Your task to perform on an android device: Search for custom wallets on Etsy. Image 0: 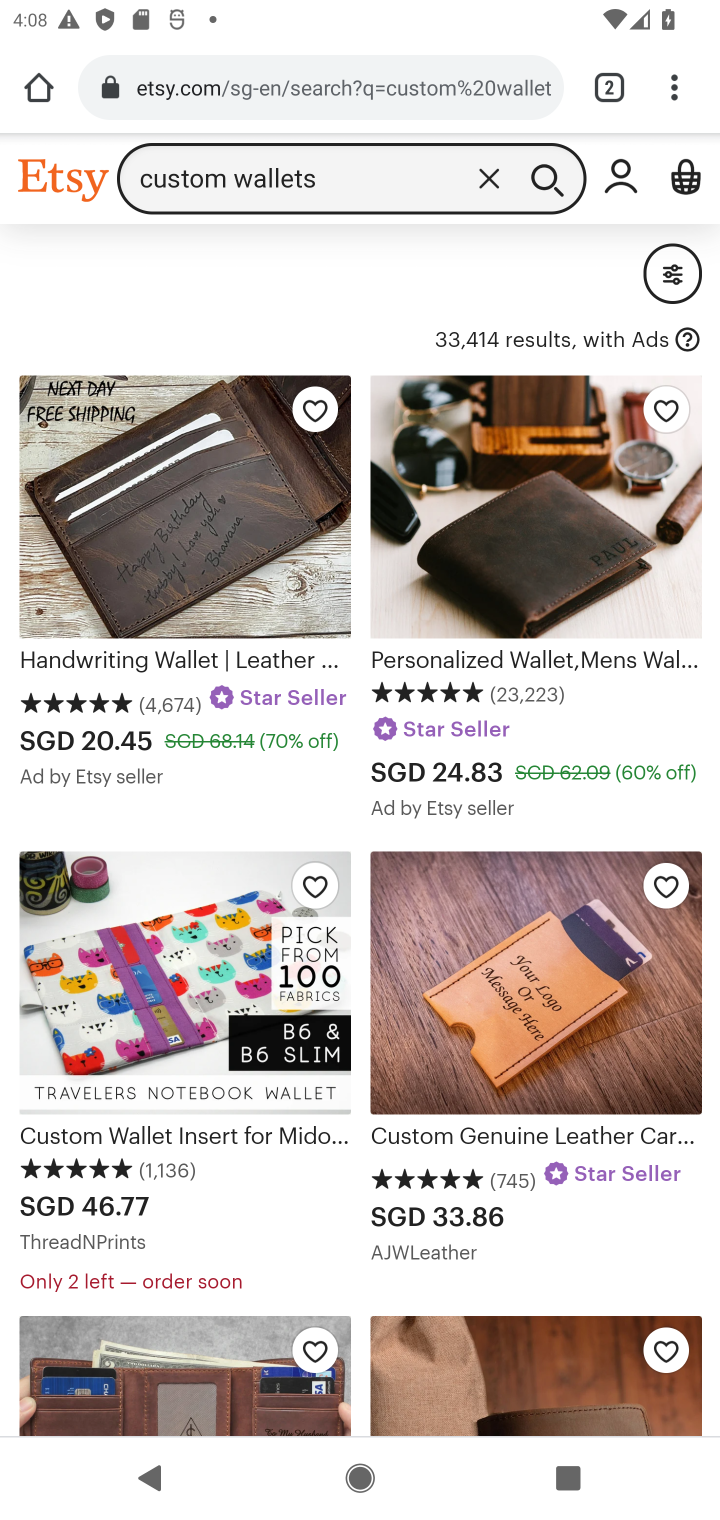
Step 0: press home button
Your task to perform on an android device: Search for custom wallets on Etsy. Image 1: 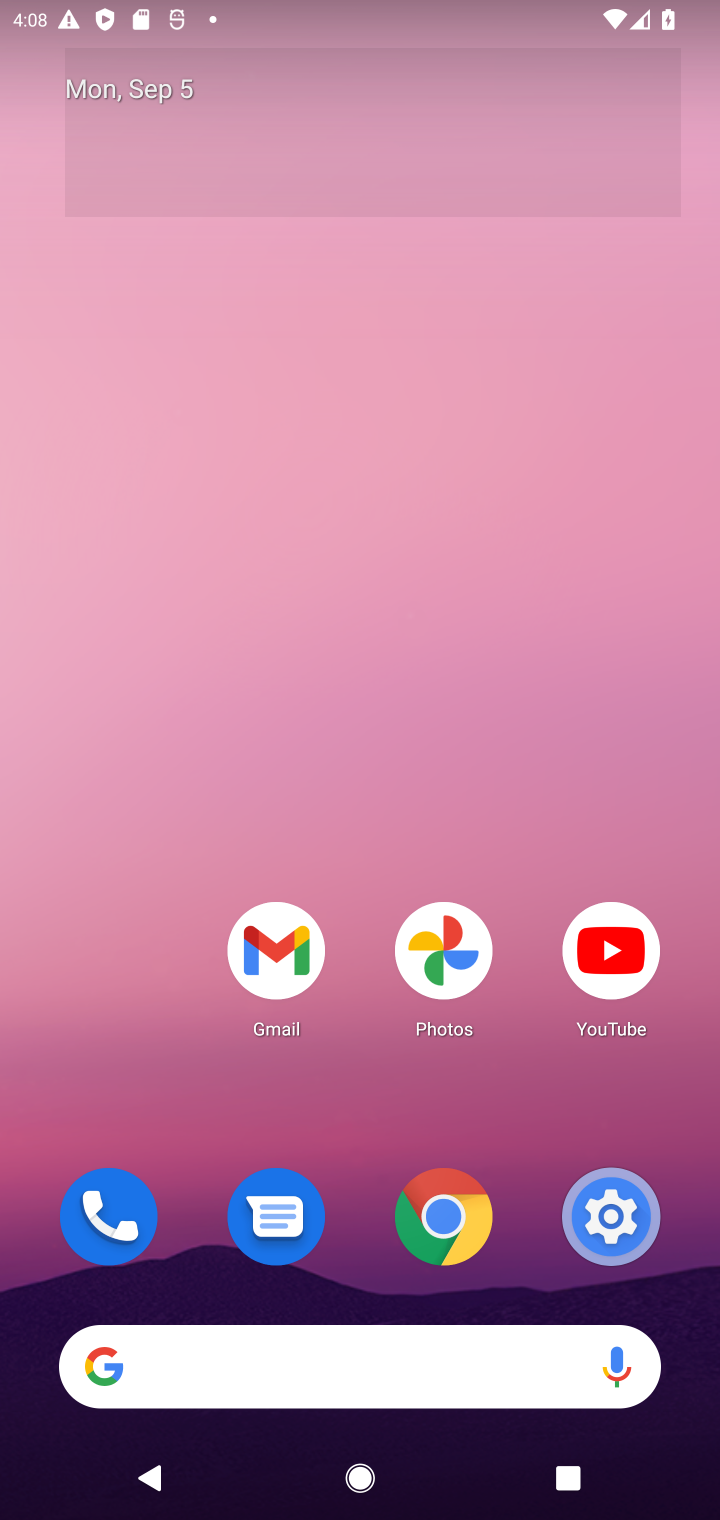
Step 1: press home button
Your task to perform on an android device: Search for custom wallets on Etsy. Image 2: 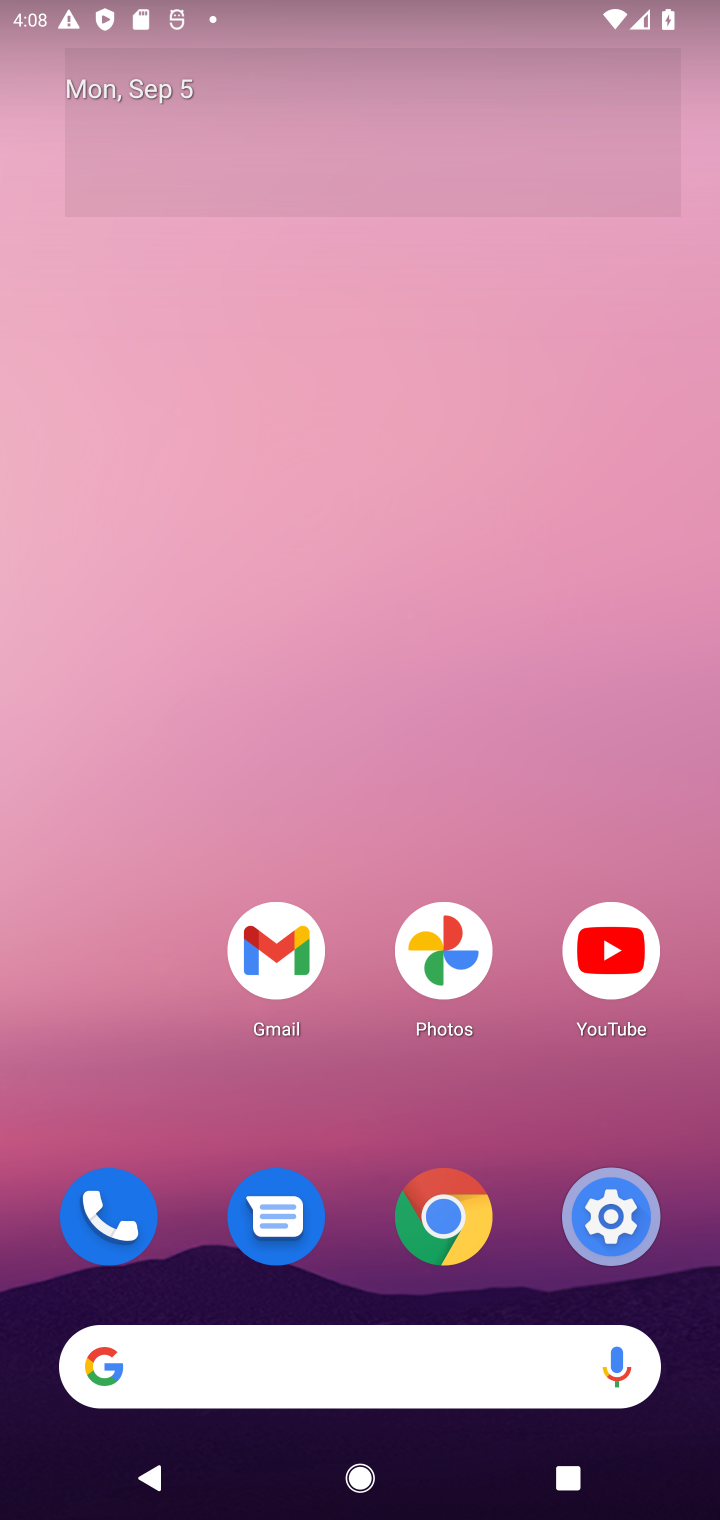
Step 2: click (105, 1350)
Your task to perform on an android device: Search for custom wallets on Etsy. Image 3: 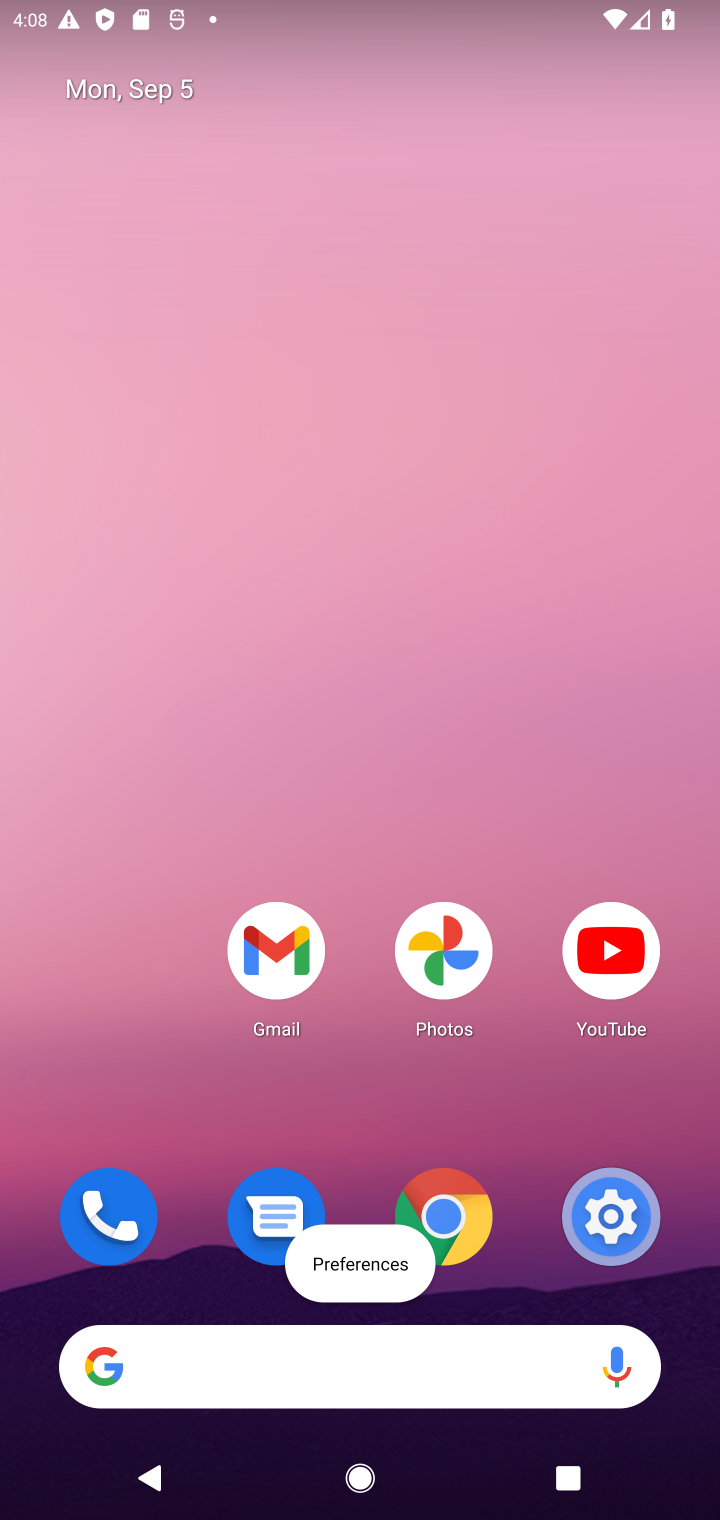
Step 3: click (82, 1372)
Your task to perform on an android device: Search for custom wallets on Etsy. Image 4: 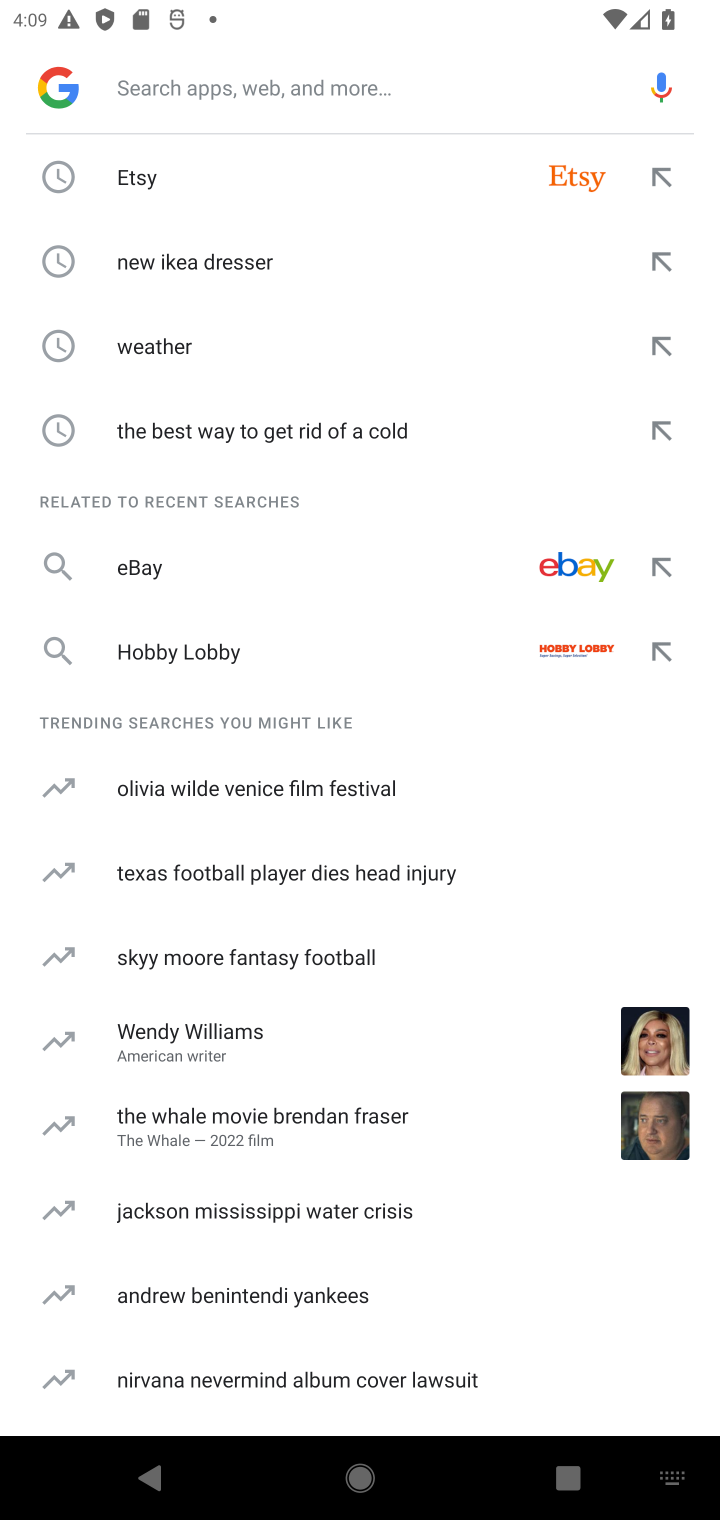
Step 4: click (577, 177)
Your task to perform on an android device: Search for custom wallets on Etsy. Image 5: 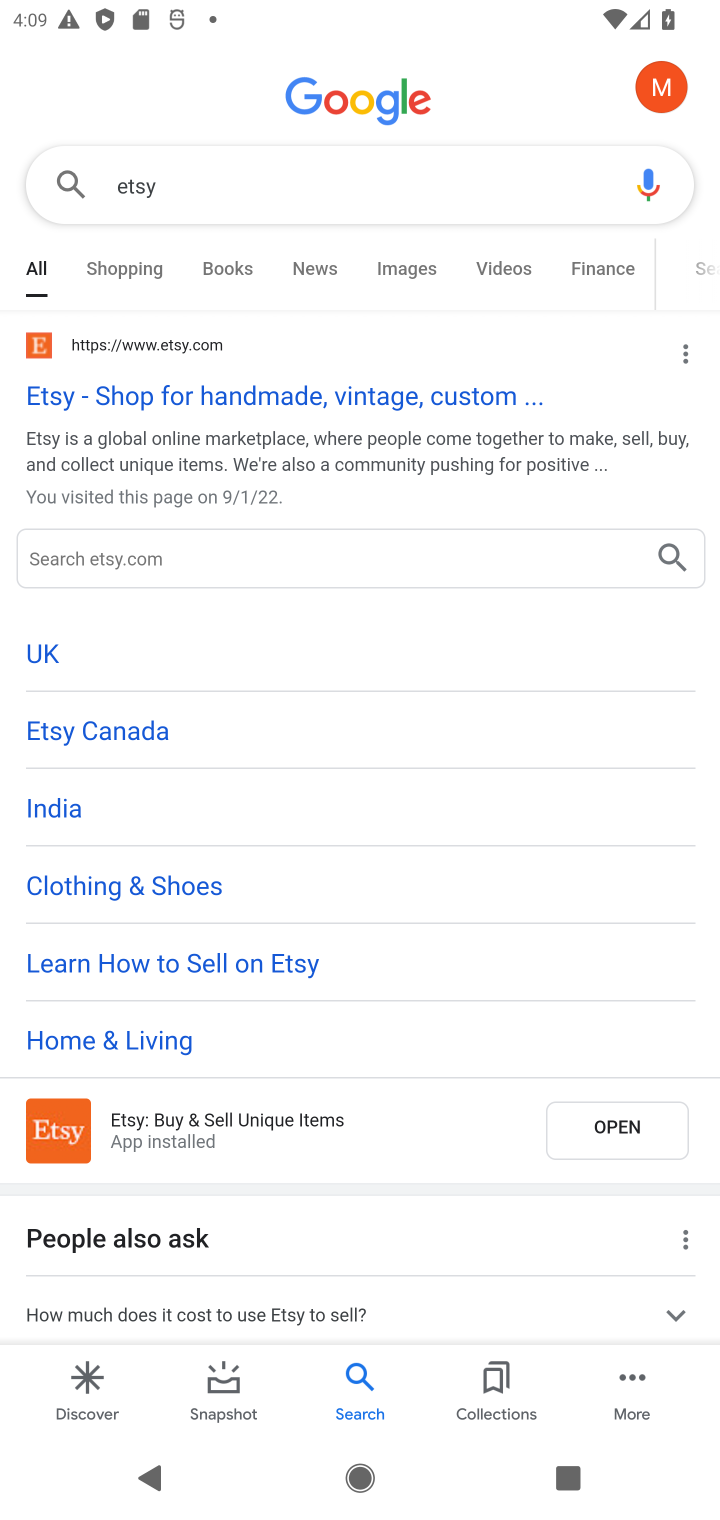
Step 5: click (182, 387)
Your task to perform on an android device: Search for custom wallets on Etsy. Image 6: 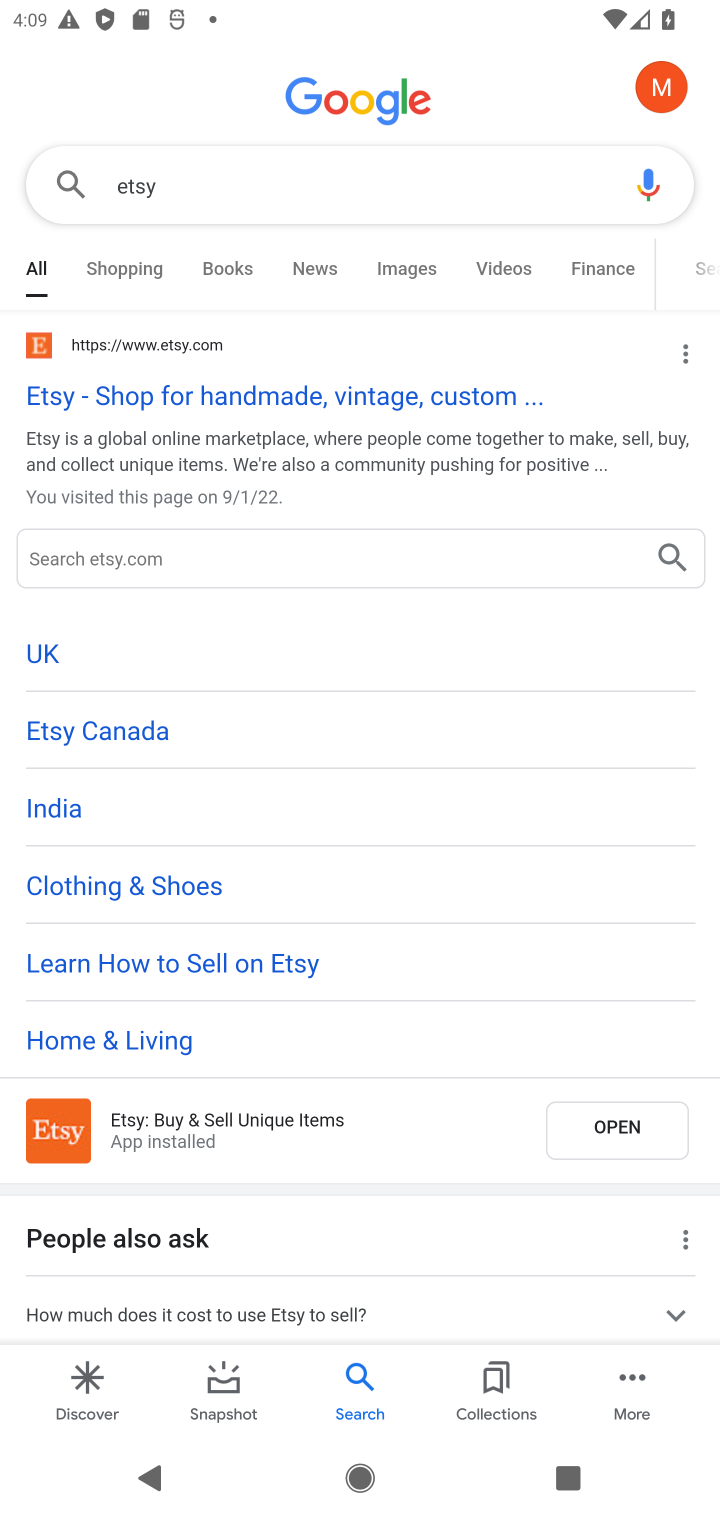
Step 6: click (128, 392)
Your task to perform on an android device: Search for custom wallets on Etsy. Image 7: 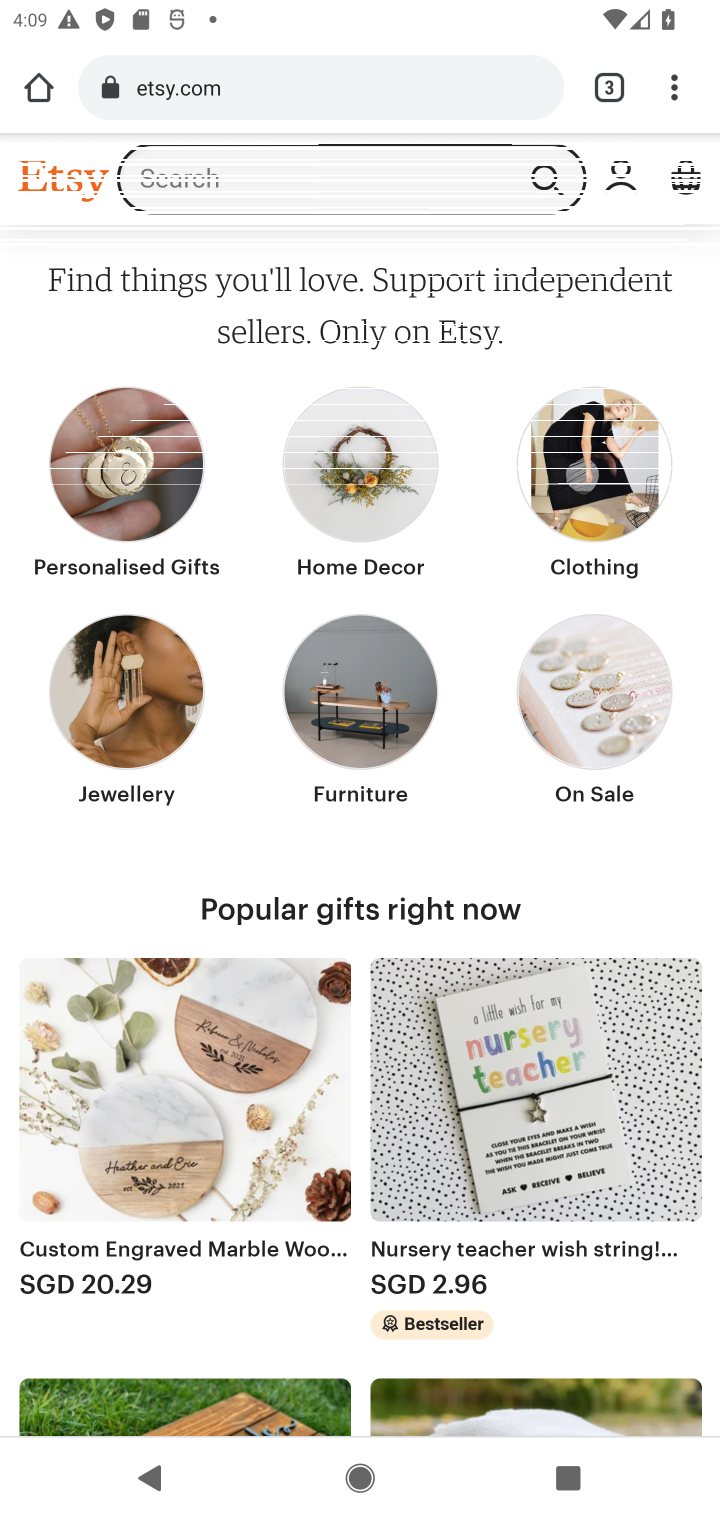
Step 7: type "custom wallets"
Your task to perform on an android device: Search for custom wallets on Etsy. Image 8: 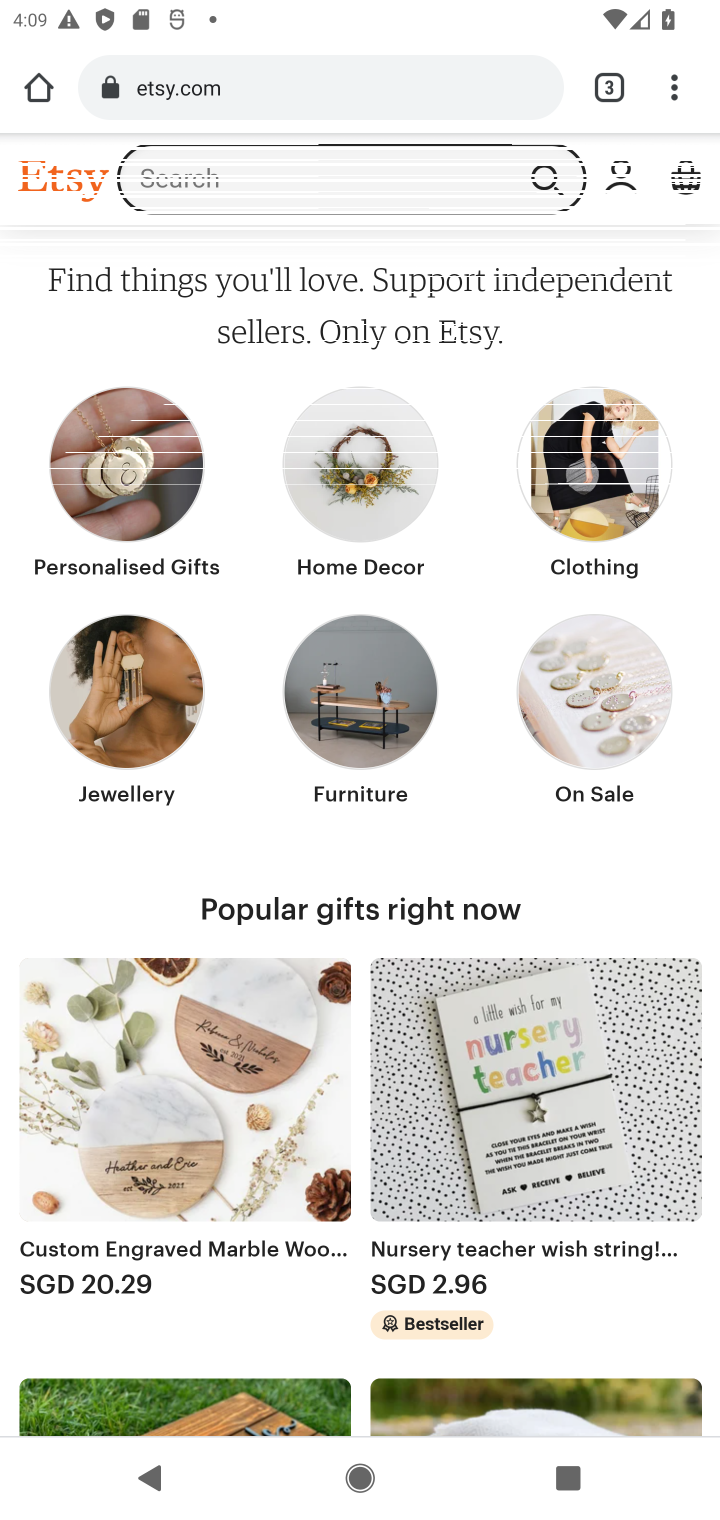
Step 8: click (203, 175)
Your task to perform on an android device: Search for custom wallets on Etsy. Image 9: 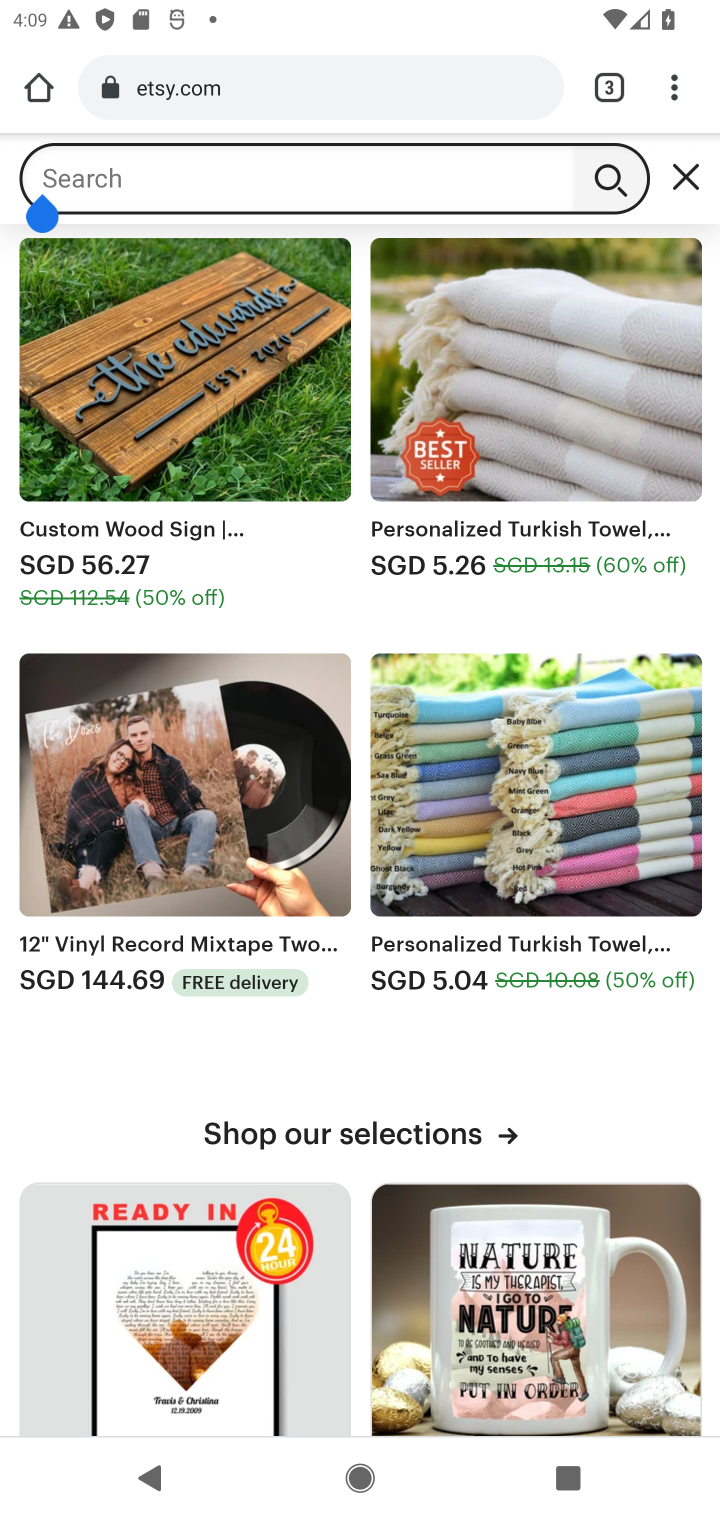
Step 9: click (160, 170)
Your task to perform on an android device: Search for custom wallets on Etsy. Image 10: 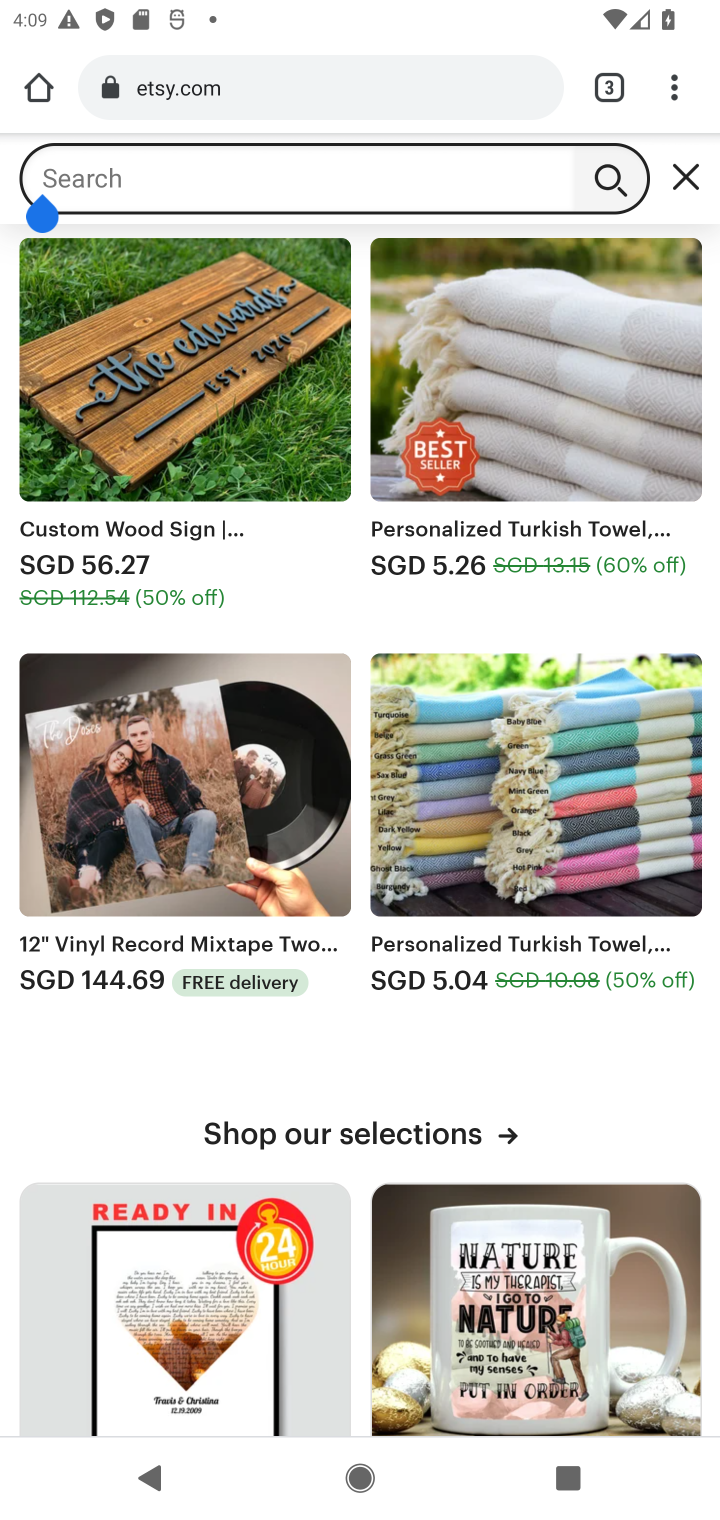
Step 10: type "custom wallets"
Your task to perform on an android device: Search for custom wallets on Etsy. Image 11: 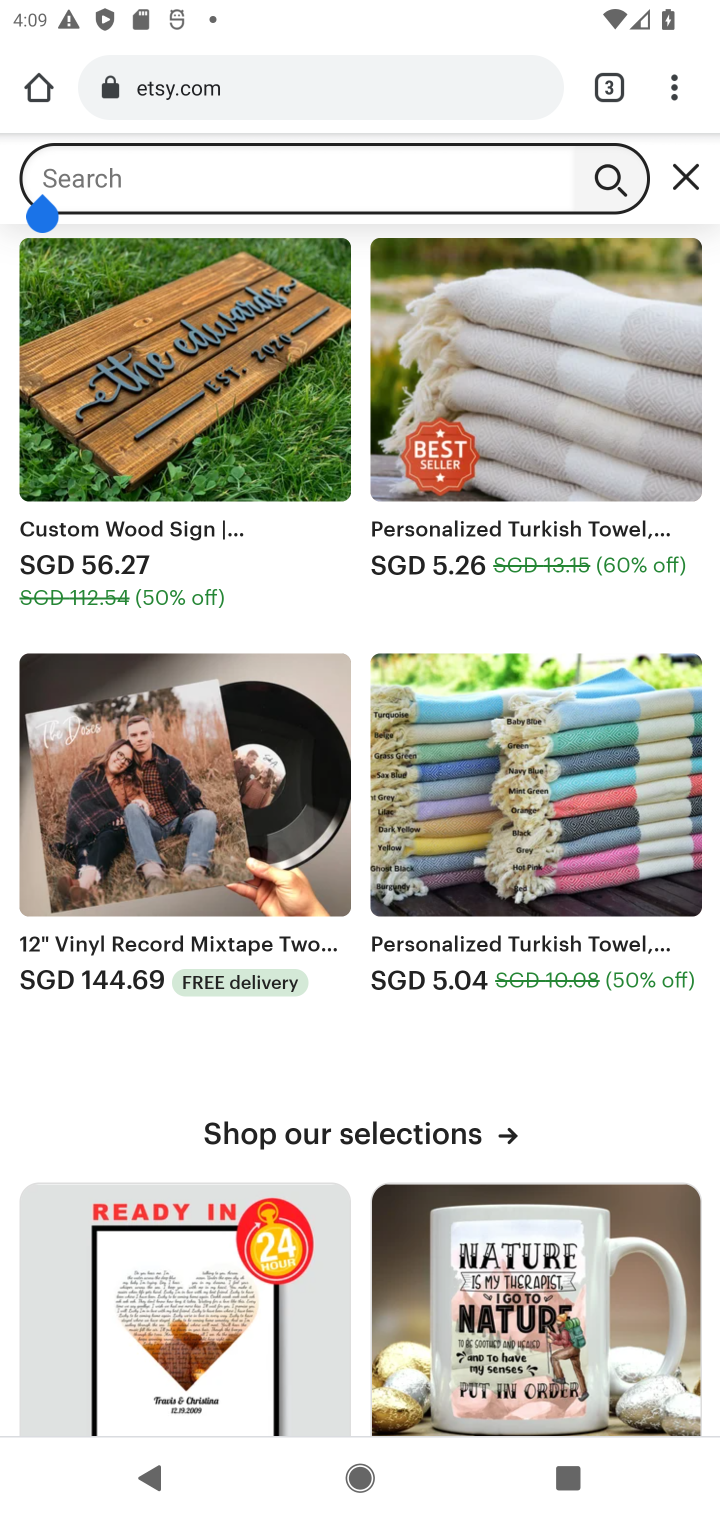
Step 11: click (184, 174)
Your task to perform on an android device: Search for custom wallets on Etsy. Image 12: 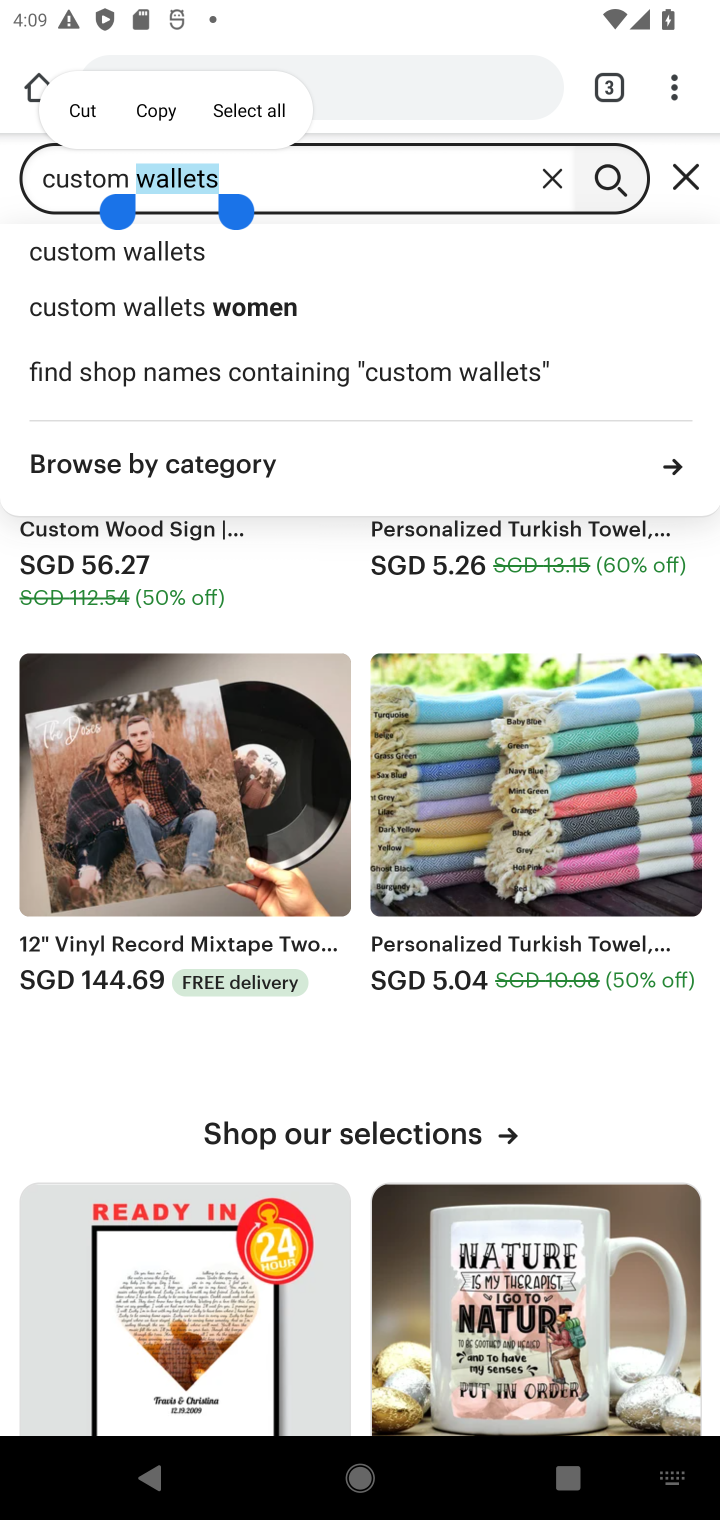
Step 12: press enter
Your task to perform on an android device: Search for custom wallets on Etsy. Image 13: 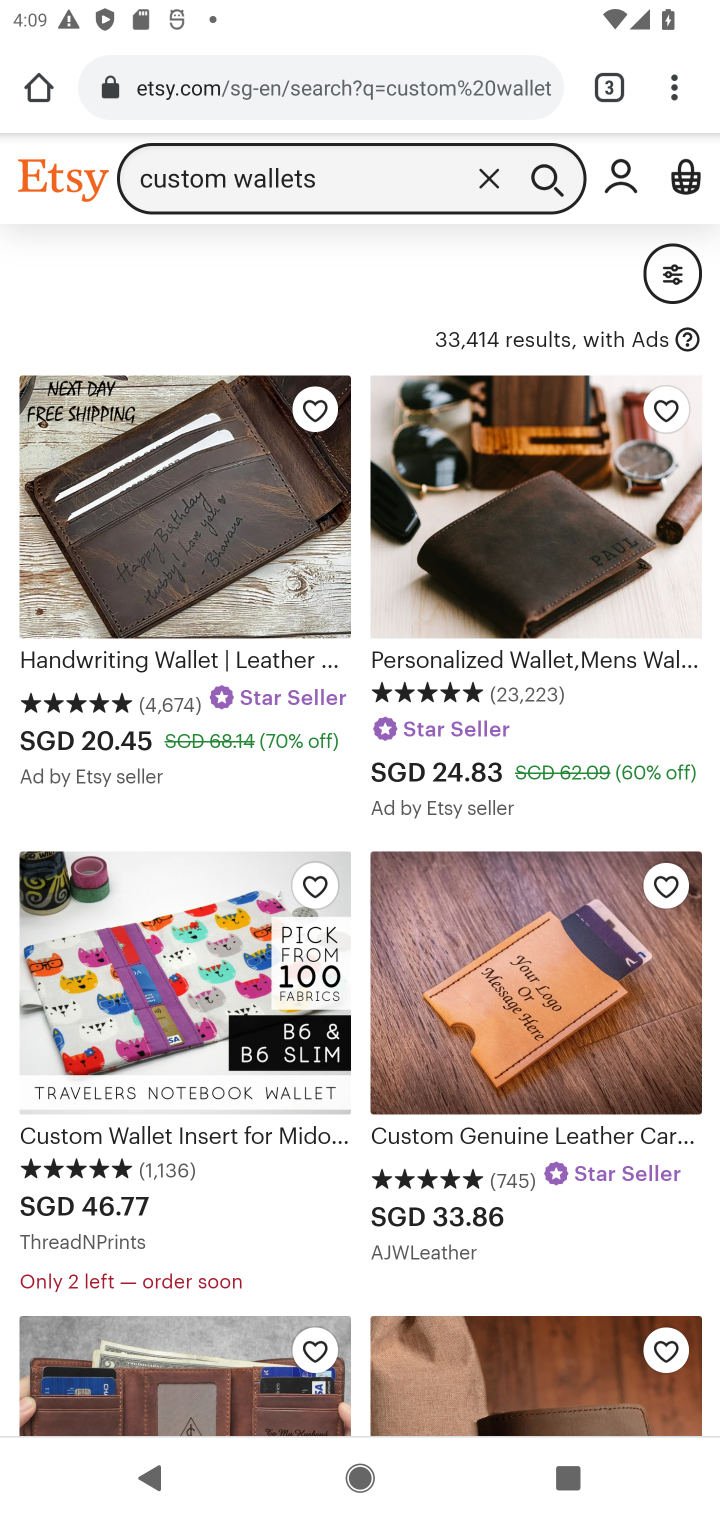
Step 13: task complete